Your task to perform on an android device: delete browsing data in the chrome app Image 0: 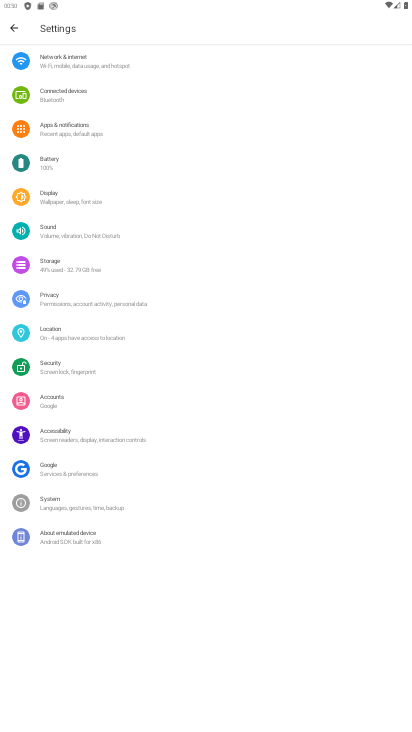
Step 0: press home button
Your task to perform on an android device: delete browsing data in the chrome app Image 1: 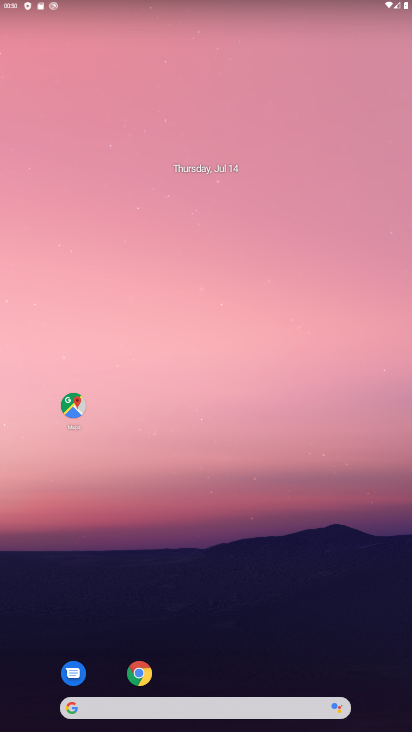
Step 1: click (140, 682)
Your task to perform on an android device: delete browsing data in the chrome app Image 2: 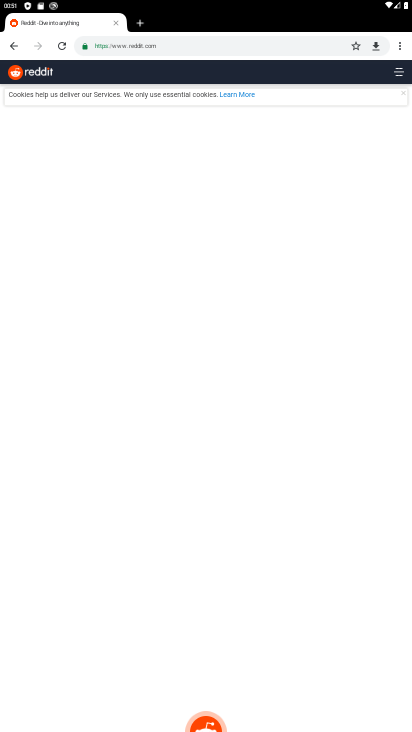
Step 2: click (401, 52)
Your task to perform on an android device: delete browsing data in the chrome app Image 3: 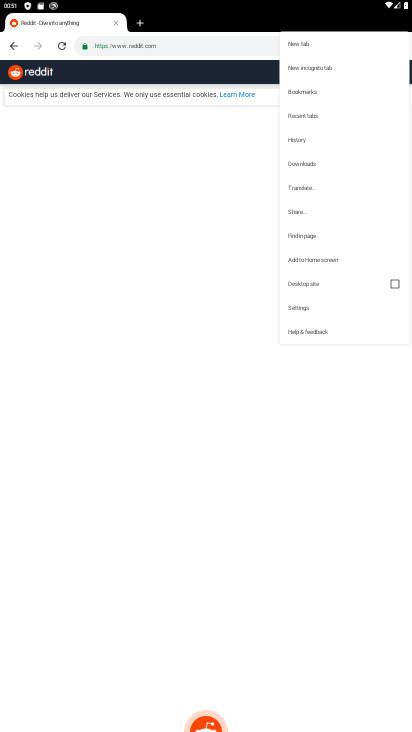
Step 3: click (313, 303)
Your task to perform on an android device: delete browsing data in the chrome app Image 4: 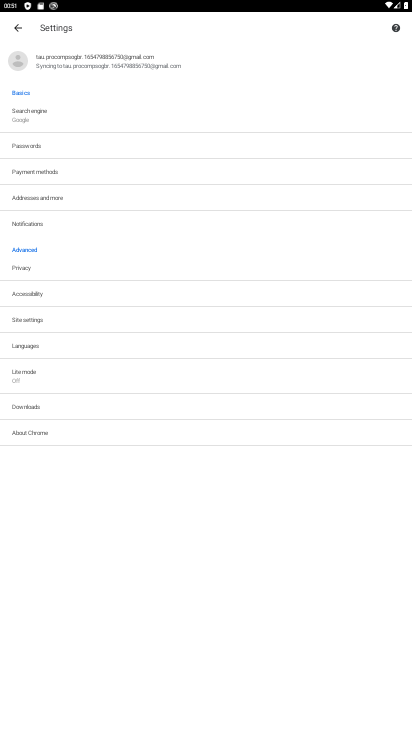
Step 4: task complete